Your task to perform on an android device: check out phone information Image 0: 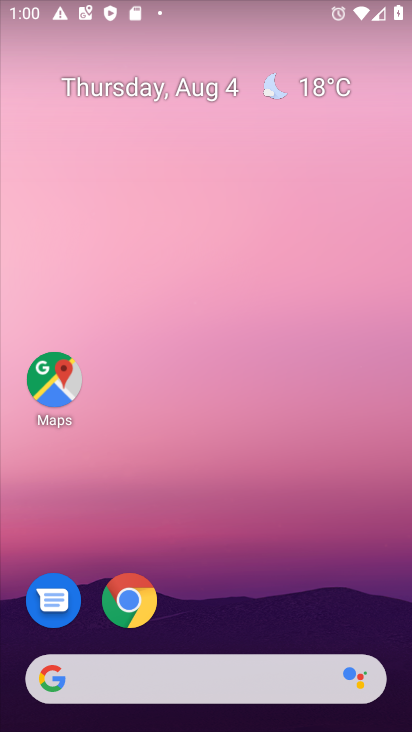
Step 0: drag from (123, 659) to (277, 88)
Your task to perform on an android device: check out phone information Image 1: 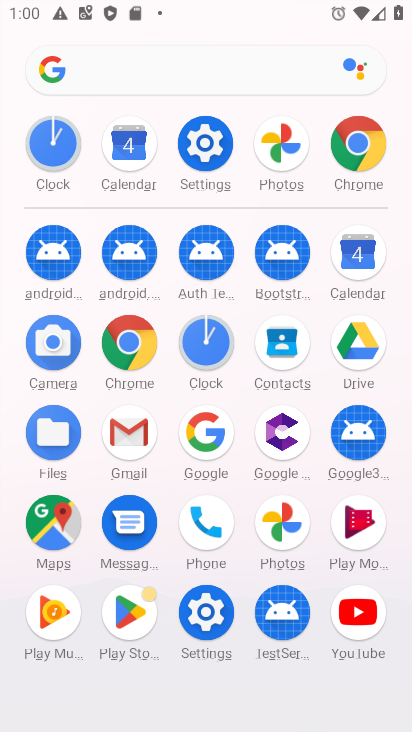
Step 1: click (208, 619)
Your task to perform on an android device: check out phone information Image 2: 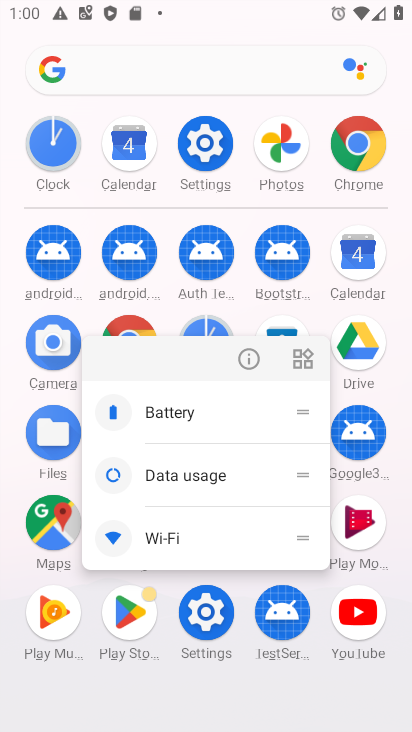
Step 2: click (207, 613)
Your task to perform on an android device: check out phone information Image 3: 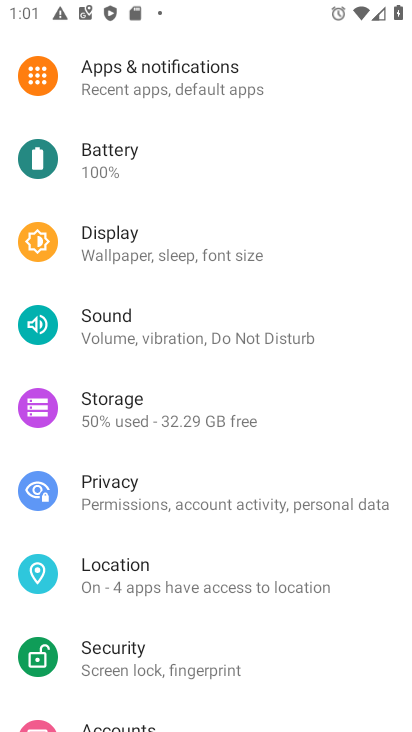
Step 3: drag from (250, 657) to (322, 73)
Your task to perform on an android device: check out phone information Image 4: 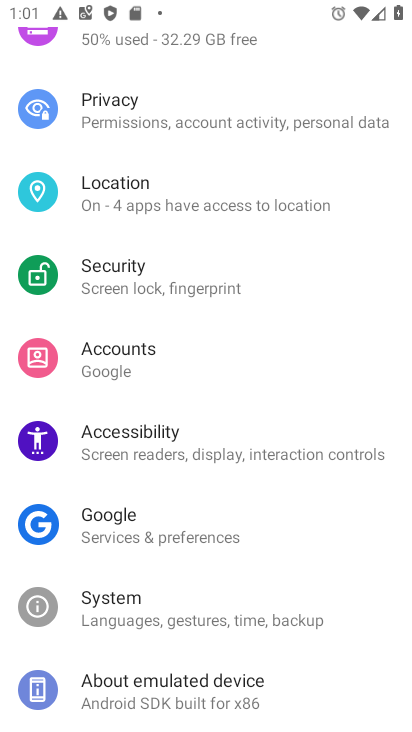
Step 4: click (175, 697)
Your task to perform on an android device: check out phone information Image 5: 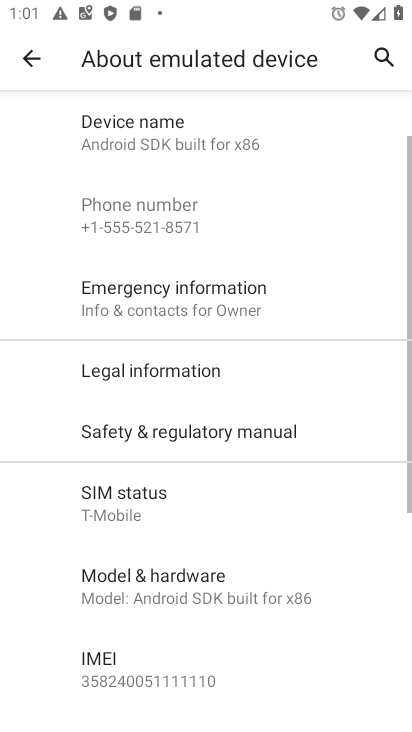
Step 5: task complete